Your task to perform on an android device: open a bookmark in the chrome app Image 0: 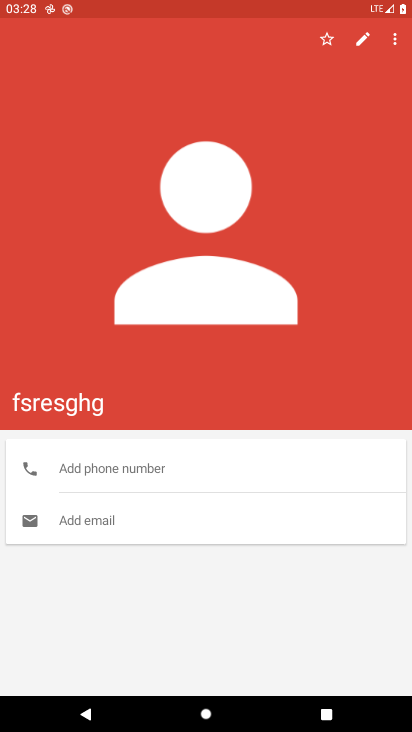
Step 0: press home button
Your task to perform on an android device: open a bookmark in the chrome app Image 1: 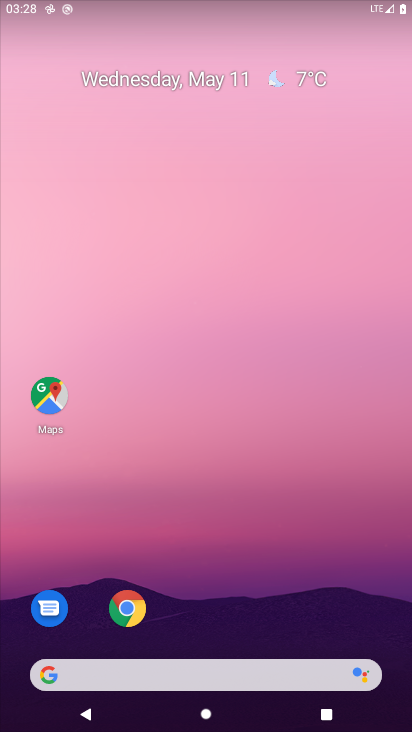
Step 1: click (130, 611)
Your task to perform on an android device: open a bookmark in the chrome app Image 2: 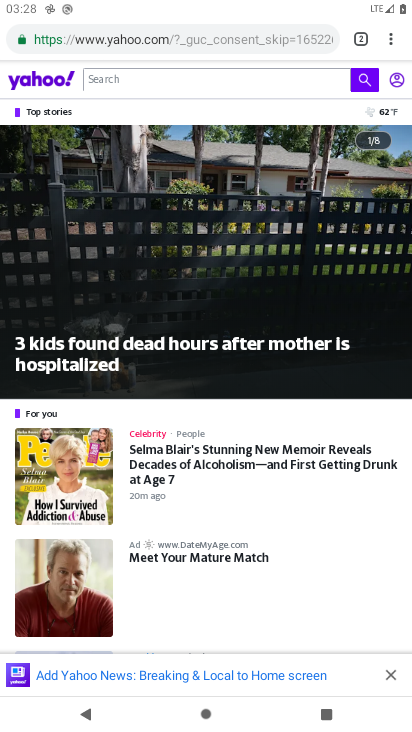
Step 2: click (390, 40)
Your task to perform on an android device: open a bookmark in the chrome app Image 3: 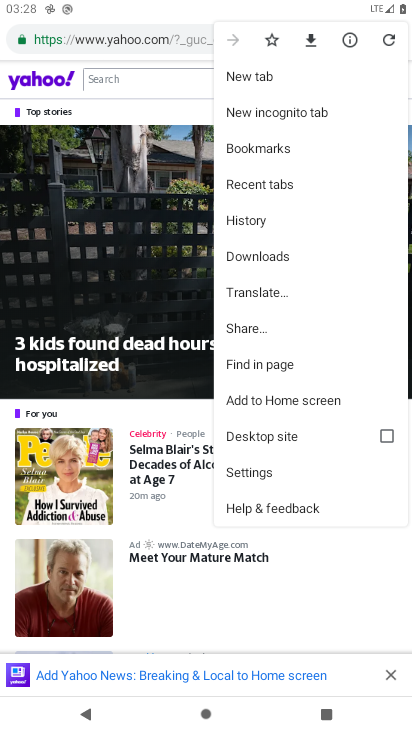
Step 3: click (297, 147)
Your task to perform on an android device: open a bookmark in the chrome app Image 4: 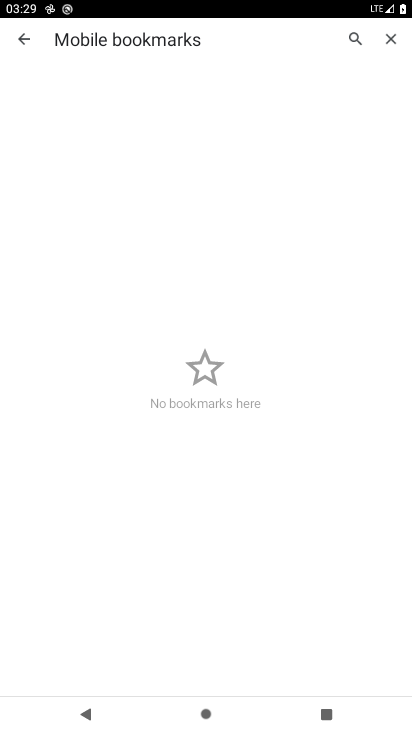
Step 4: task complete